Your task to perform on an android device: Go to calendar. Show me events next week Image 0: 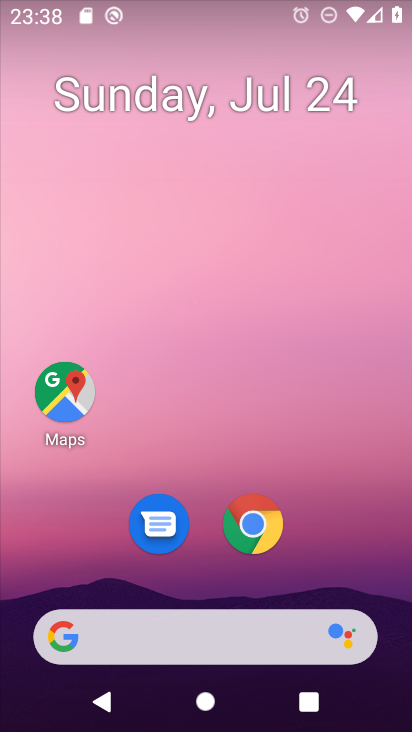
Step 0: press home button
Your task to perform on an android device: Go to calendar. Show me events next week Image 1: 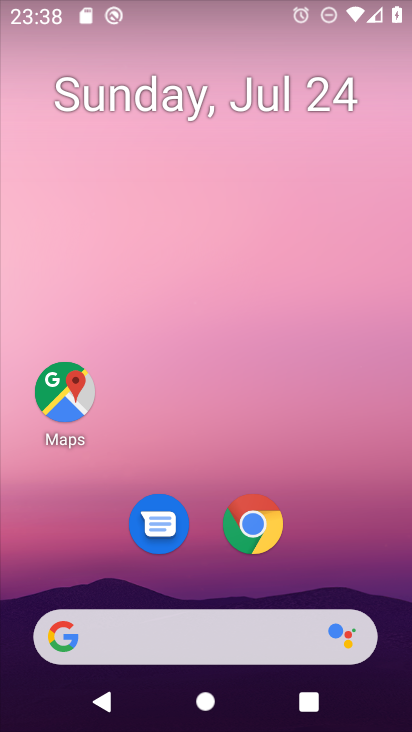
Step 1: drag from (181, 617) to (261, 119)
Your task to perform on an android device: Go to calendar. Show me events next week Image 2: 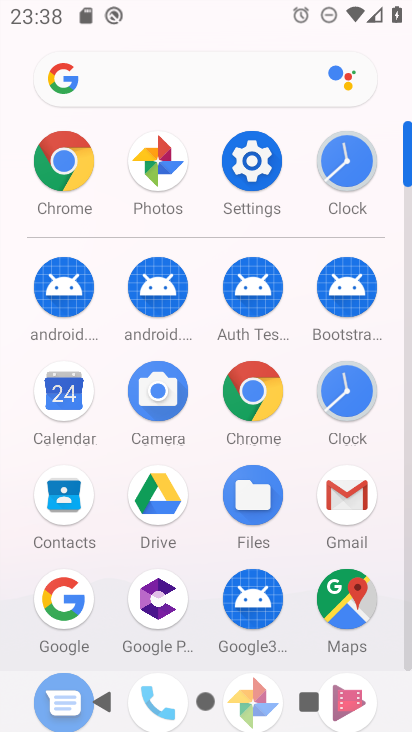
Step 2: click (72, 401)
Your task to perform on an android device: Go to calendar. Show me events next week Image 3: 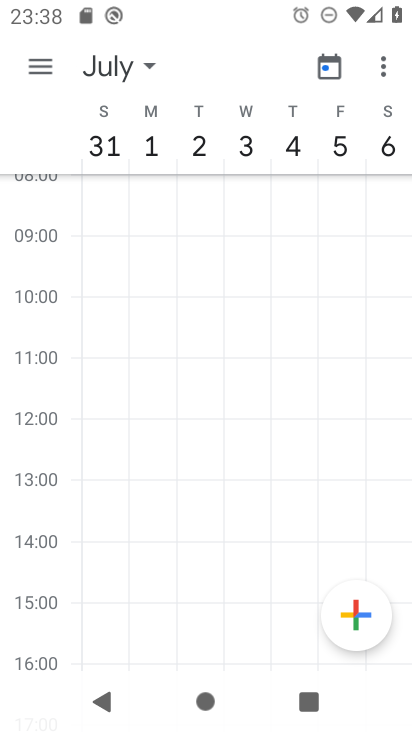
Step 3: click (127, 66)
Your task to perform on an android device: Go to calendar. Show me events next week Image 4: 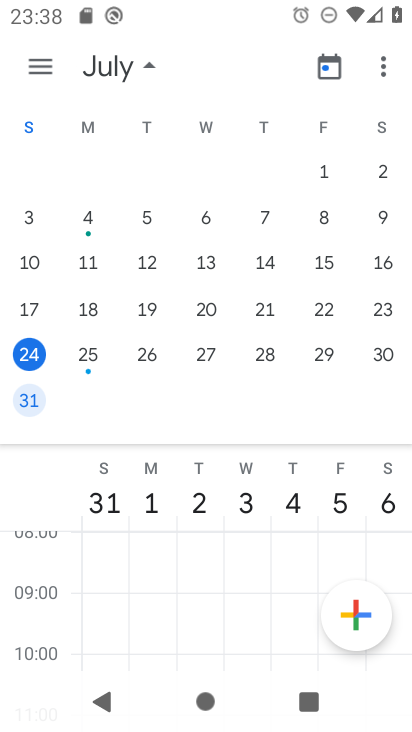
Step 4: click (30, 405)
Your task to perform on an android device: Go to calendar. Show me events next week Image 5: 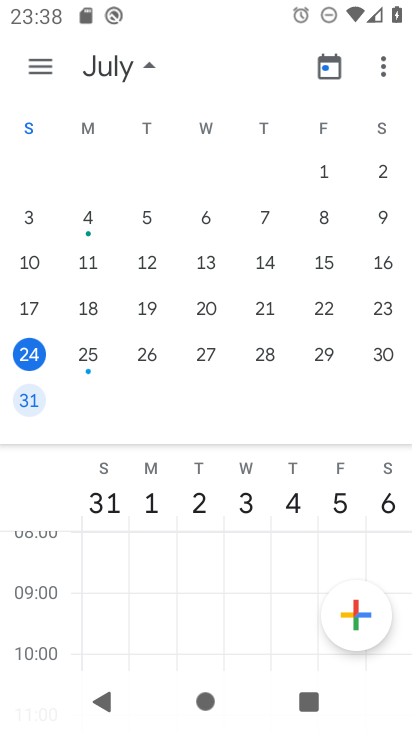
Step 5: click (42, 72)
Your task to perform on an android device: Go to calendar. Show me events next week Image 6: 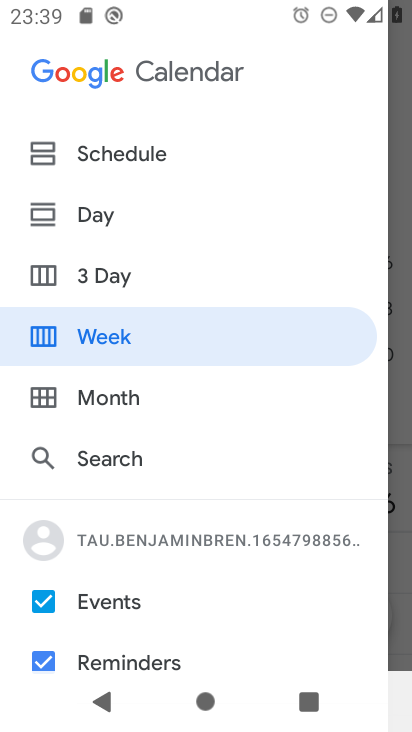
Step 6: click (133, 145)
Your task to perform on an android device: Go to calendar. Show me events next week Image 7: 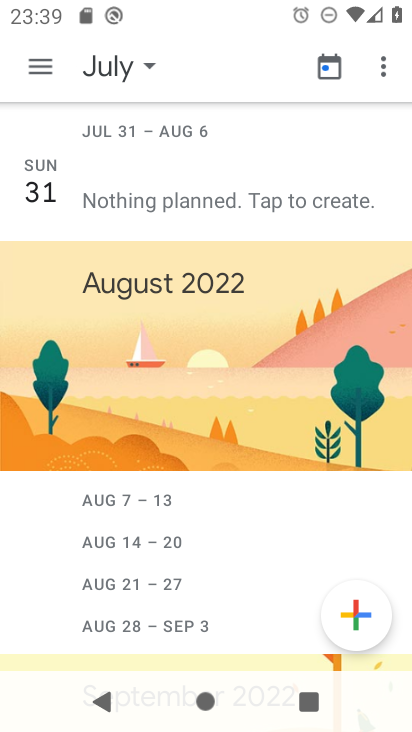
Step 7: click (27, 72)
Your task to perform on an android device: Go to calendar. Show me events next week Image 8: 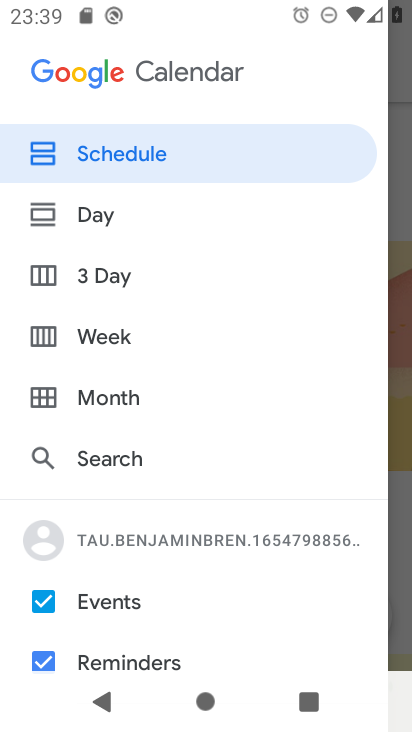
Step 8: click (107, 333)
Your task to perform on an android device: Go to calendar. Show me events next week Image 9: 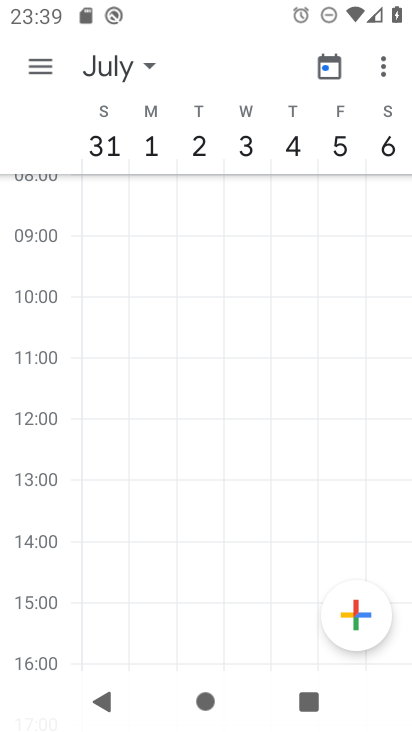
Step 9: click (49, 62)
Your task to perform on an android device: Go to calendar. Show me events next week Image 10: 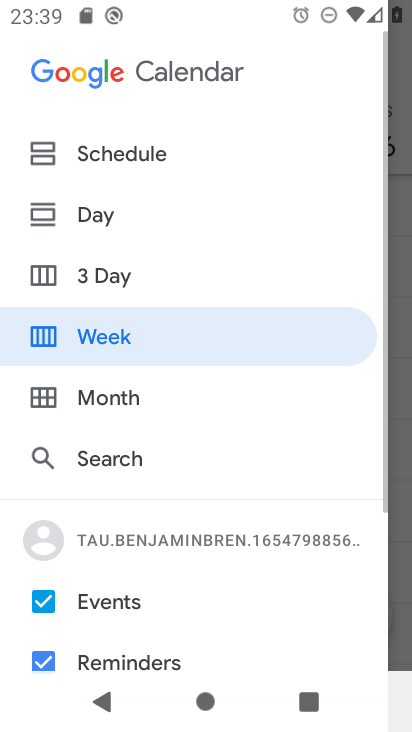
Step 10: click (98, 155)
Your task to perform on an android device: Go to calendar. Show me events next week Image 11: 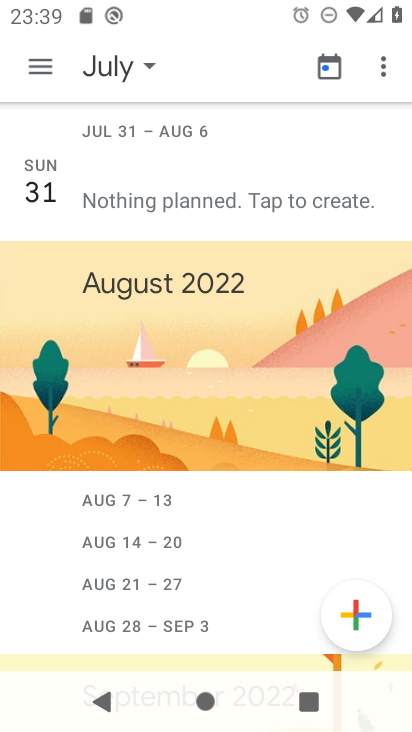
Step 11: task complete